Your task to perform on an android device: turn on location history Image 0: 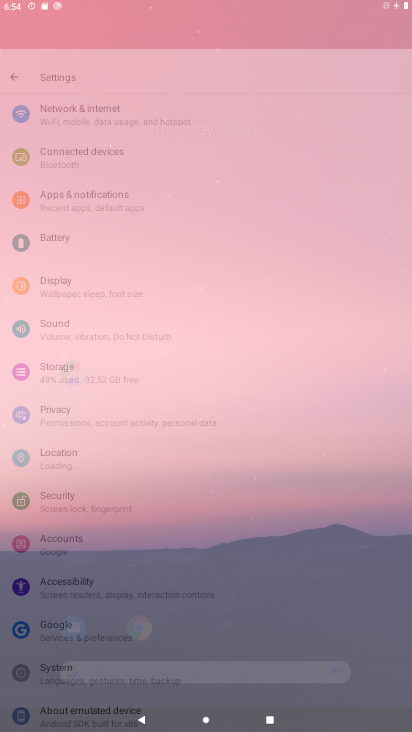
Step 0: click (196, 58)
Your task to perform on an android device: turn on location history Image 1: 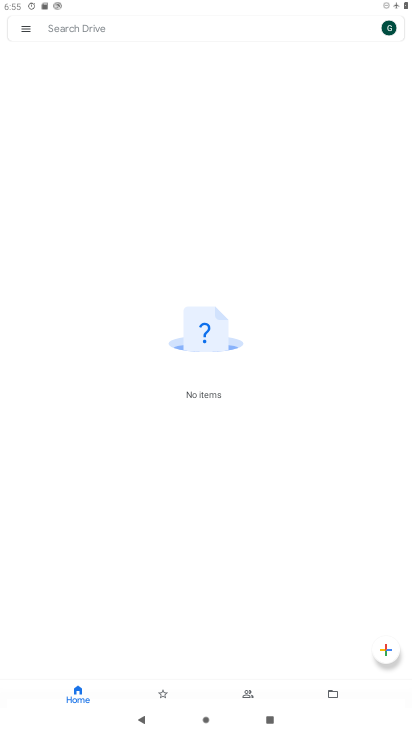
Step 1: press home button
Your task to perform on an android device: turn on location history Image 2: 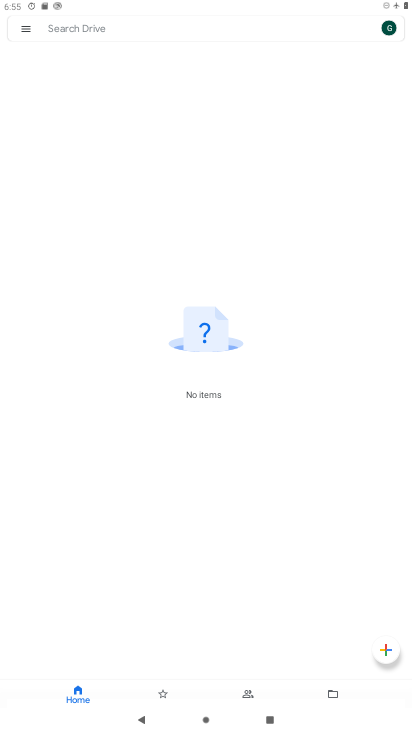
Step 2: drag from (346, 677) to (169, 3)
Your task to perform on an android device: turn on location history Image 3: 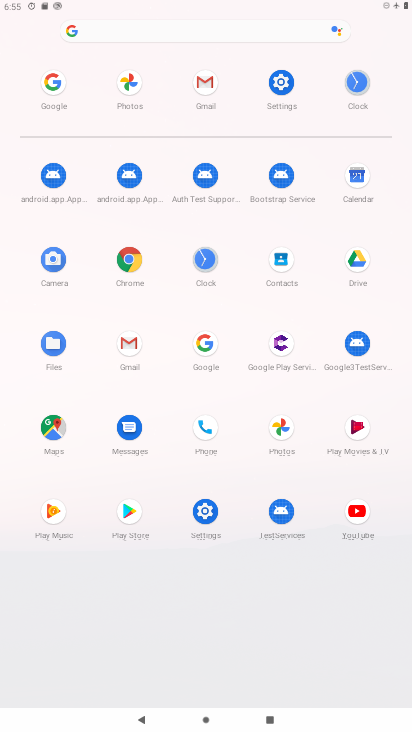
Step 3: click (205, 524)
Your task to perform on an android device: turn on location history Image 4: 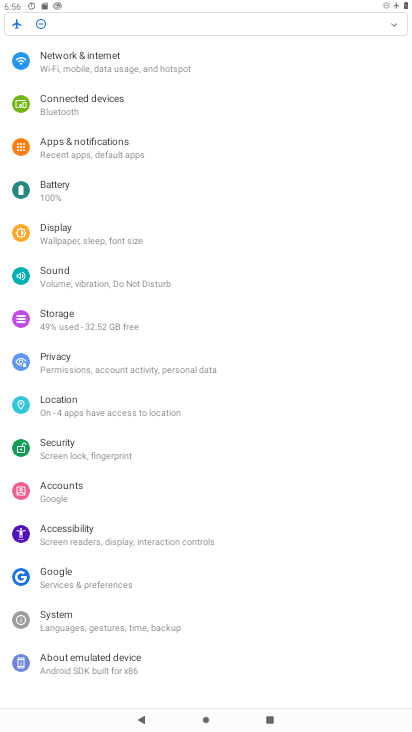
Step 4: click (55, 411)
Your task to perform on an android device: turn on location history Image 5: 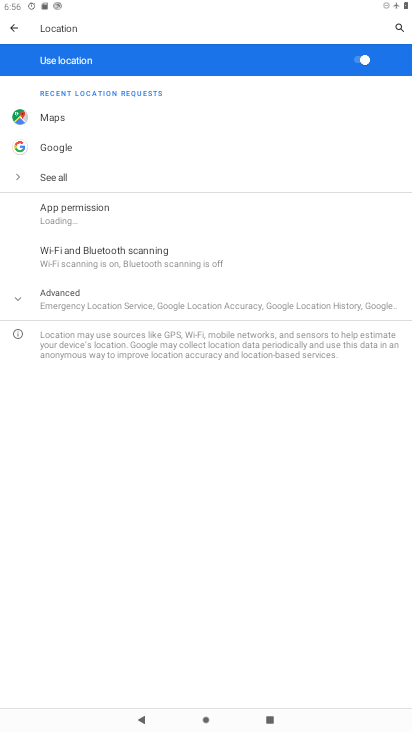
Step 5: click (91, 303)
Your task to perform on an android device: turn on location history Image 6: 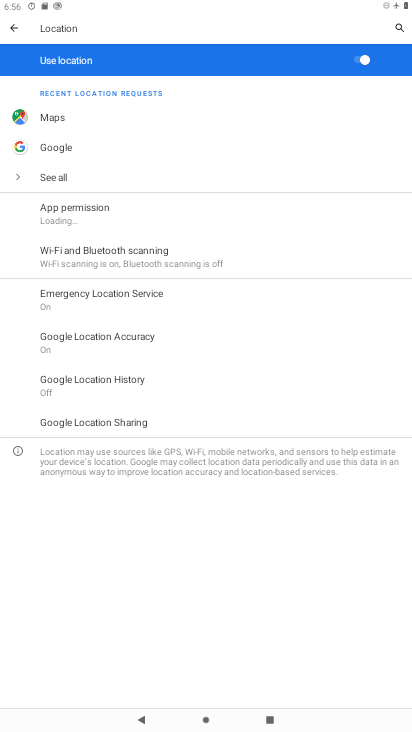
Step 6: click (102, 390)
Your task to perform on an android device: turn on location history Image 7: 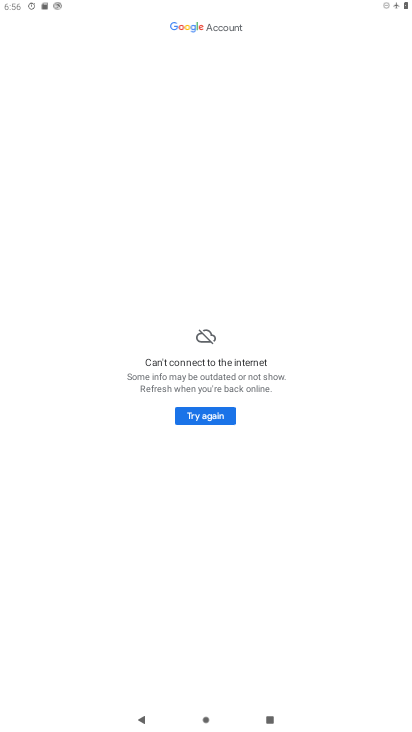
Step 7: task complete